Your task to perform on an android device: Open Yahoo.com Image 0: 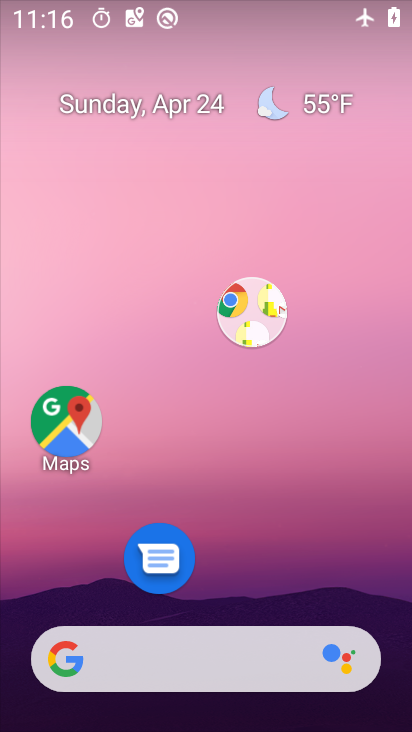
Step 0: drag from (206, 151) to (221, 31)
Your task to perform on an android device: Open Yahoo.com Image 1: 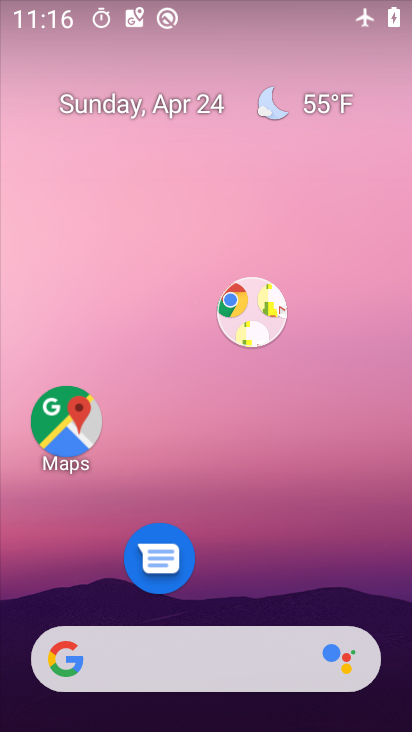
Step 1: drag from (332, 663) to (196, 93)
Your task to perform on an android device: Open Yahoo.com Image 2: 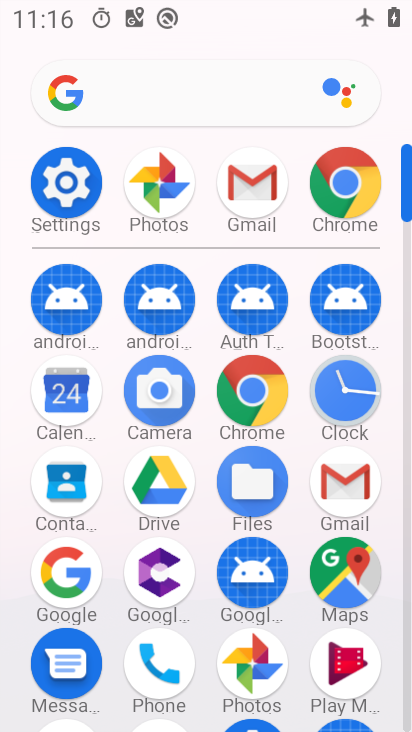
Step 2: click (353, 180)
Your task to perform on an android device: Open Yahoo.com Image 3: 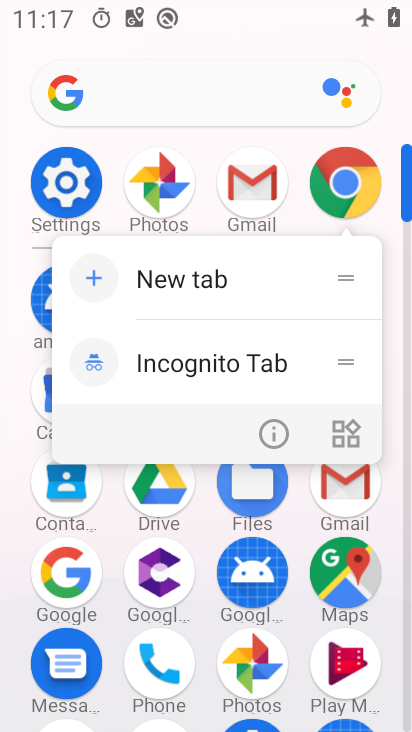
Step 3: click (172, 285)
Your task to perform on an android device: Open Yahoo.com Image 4: 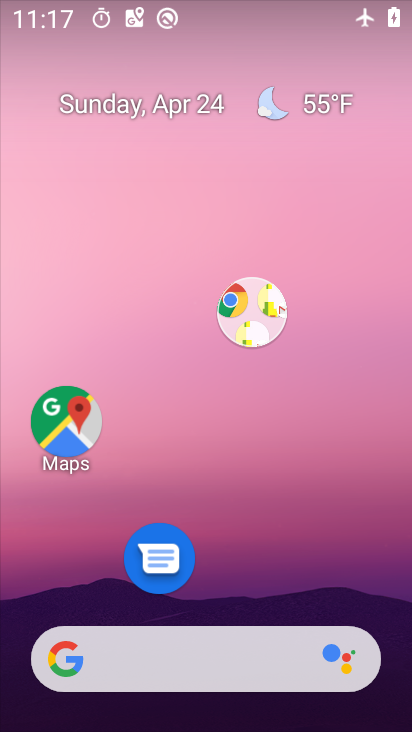
Step 4: drag from (270, 652) to (195, 38)
Your task to perform on an android device: Open Yahoo.com Image 5: 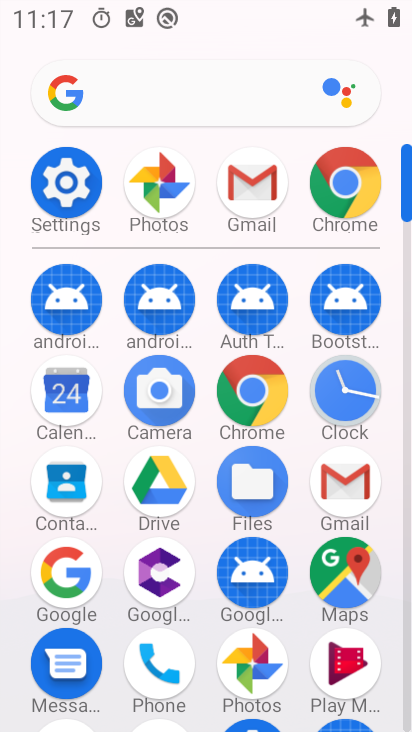
Step 5: click (348, 202)
Your task to perform on an android device: Open Yahoo.com Image 6: 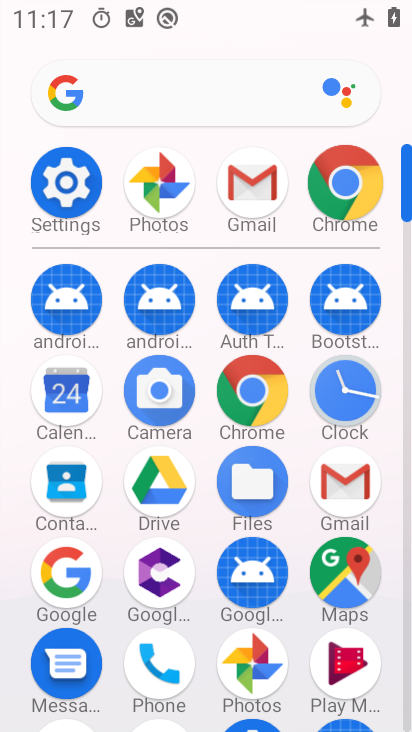
Step 6: click (349, 207)
Your task to perform on an android device: Open Yahoo.com Image 7: 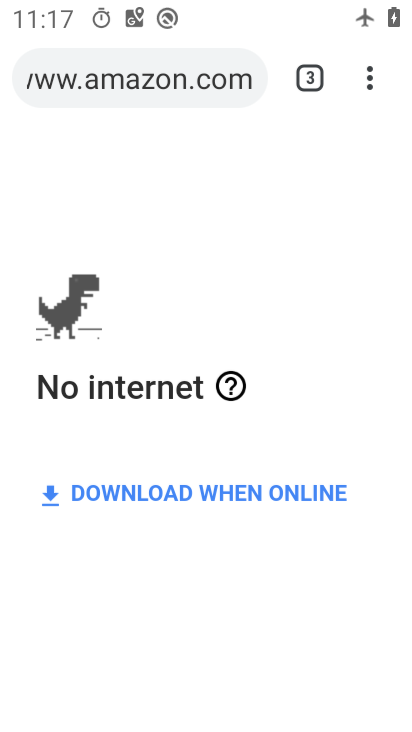
Step 7: click (341, 189)
Your task to perform on an android device: Open Yahoo.com Image 8: 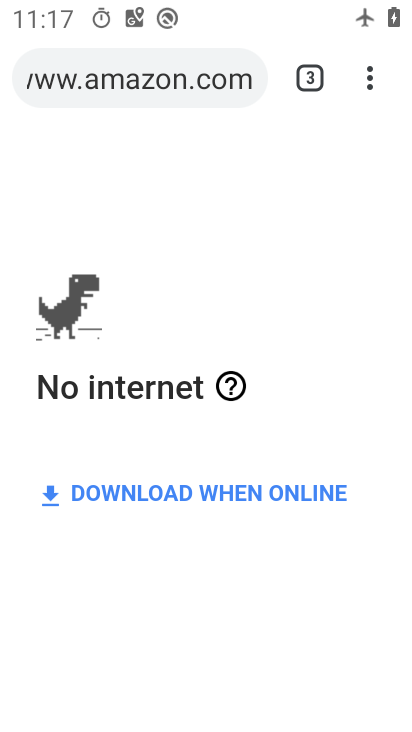
Step 8: task complete